Your task to perform on an android device: allow notifications from all sites in the chrome app Image 0: 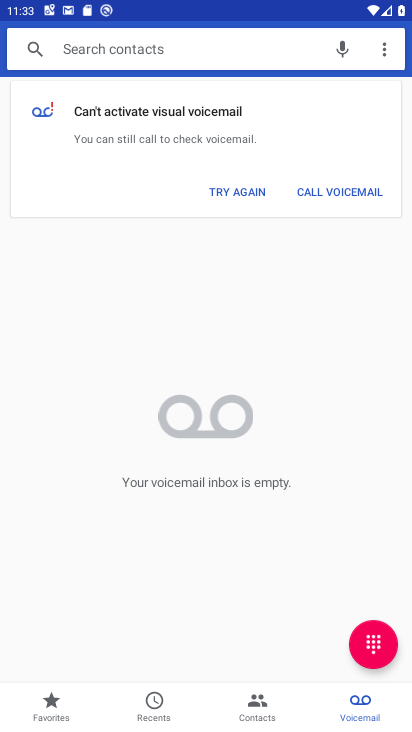
Step 0: press home button
Your task to perform on an android device: allow notifications from all sites in the chrome app Image 1: 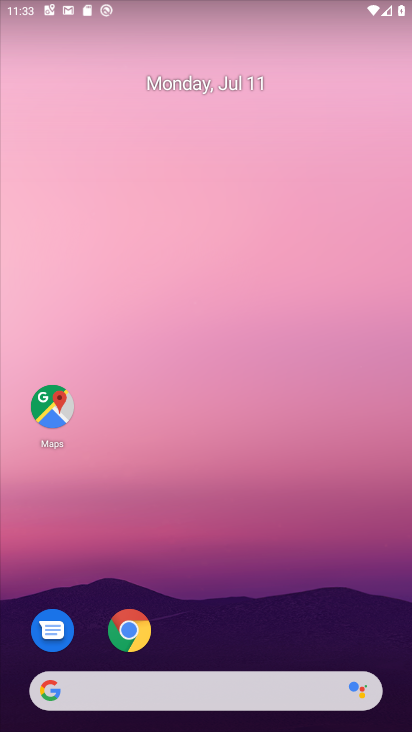
Step 1: drag from (260, 631) to (245, 13)
Your task to perform on an android device: allow notifications from all sites in the chrome app Image 2: 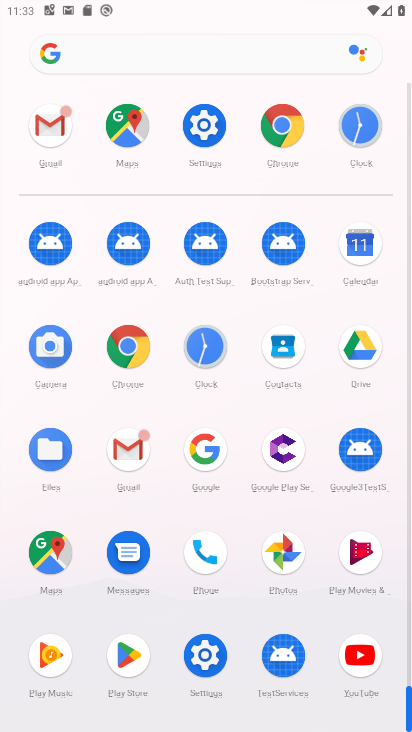
Step 2: click (137, 350)
Your task to perform on an android device: allow notifications from all sites in the chrome app Image 3: 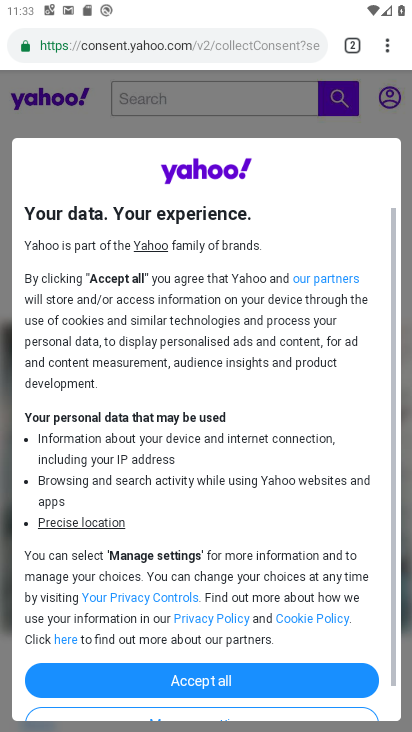
Step 3: click (385, 49)
Your task to perform on an android device: allow notifications from all sites in the chrome app Image 4: 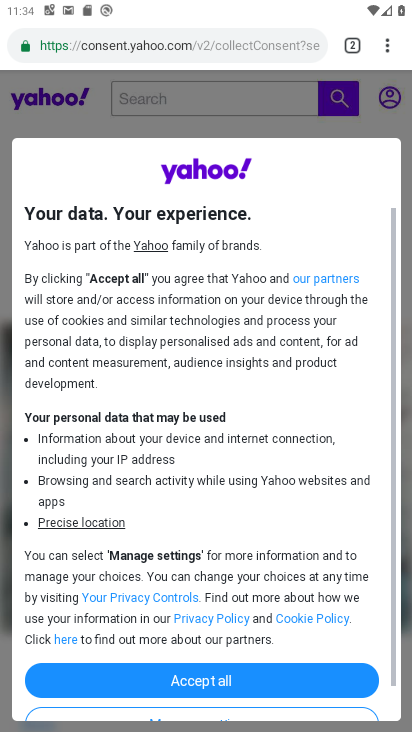
Step 4: click (389, 49)
Your task to perform on an android device: allow notifications from all sites in the chrome app Image 5: 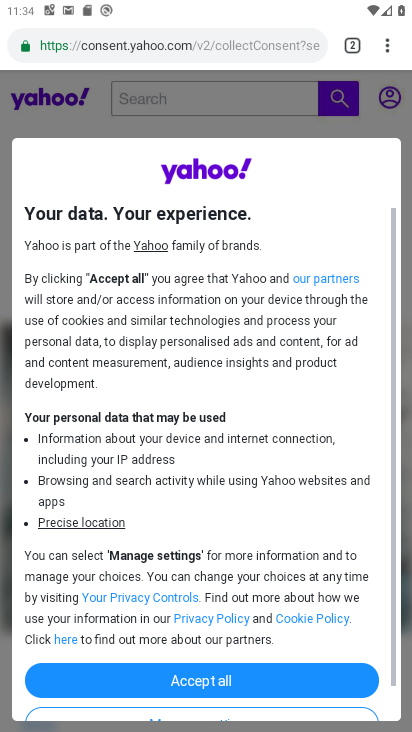
Step 5: click (390, 47)
Your task to perform on an android device: allow notifications from all sites in the chrome app Image 6: 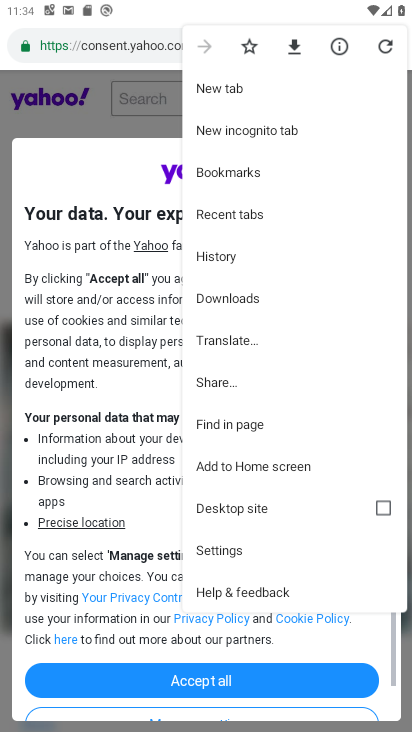
Step 6: click (254, 550)
Your task to perform on an android device: allow notifications from all sites in the chrome app Image 7: 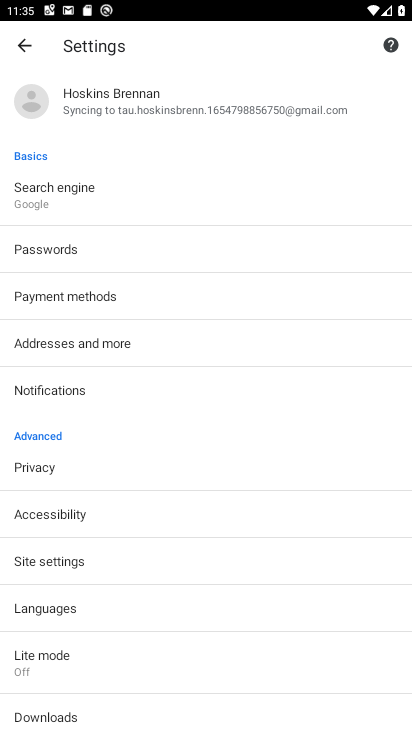
Step 7: click (51, 394)
Your task to perform on an android device: allow notifications from all sites in the chrome app Image 8: 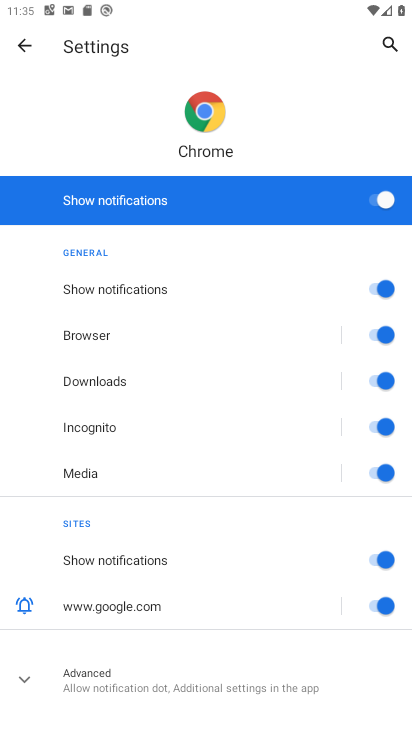
Step 8: task complete